Your task to perform on an android device: Open sound settings Image 0: 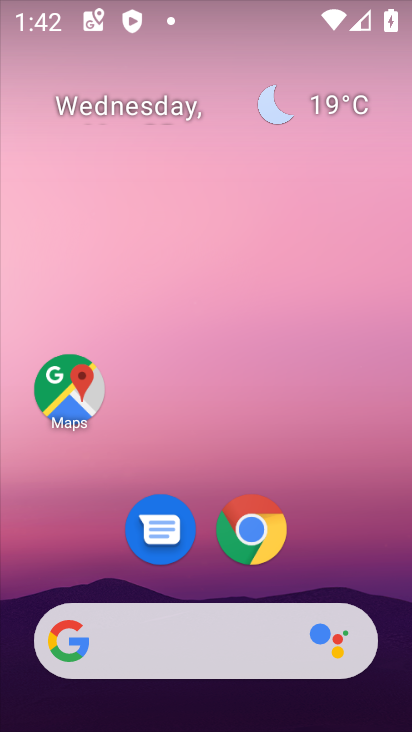
Step 0: drag from (106, 399) to (161, 195)
Your task to perform on an android device: Open sound settings Image 1: 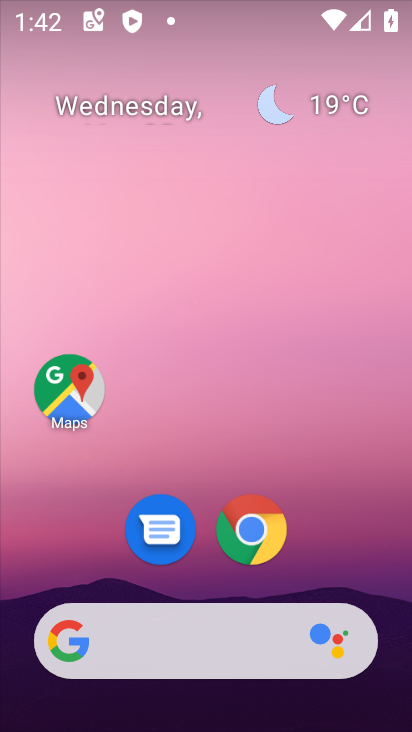
Step 1: drag from (79, 603) to (155, 200)
Your task to perform on an android device: Open sound settings Image 2: 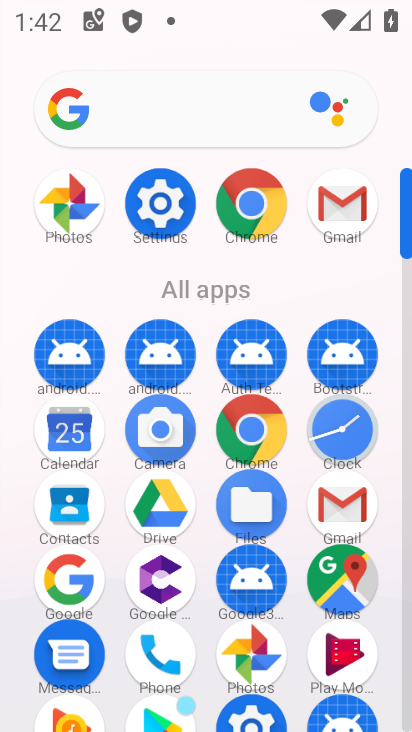
Step 2: drag from (169, 670) to (245, 351)
Your task to perform on an android device: Open sound settings Image 3: 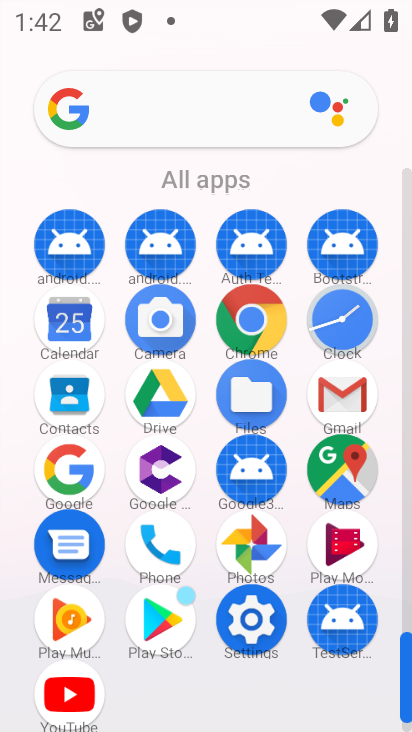
Step 3: click (258, 619)
Your task to perform on an android device: Open sound settings Image 4: 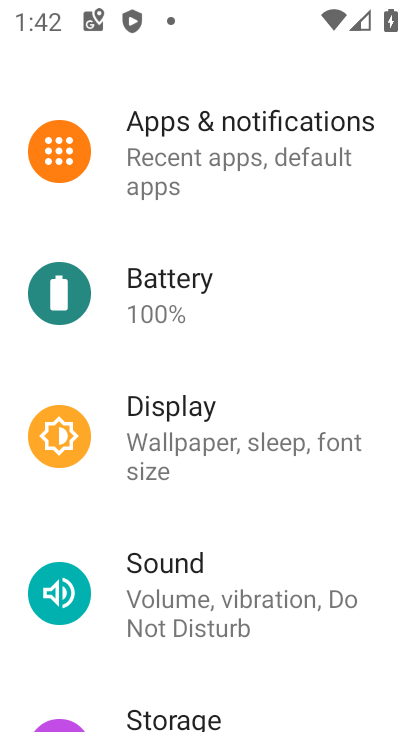
Step 4: drag from (203, 631) to (224, 308)
Your task to perform on an android device: Open sound settings Image 5: 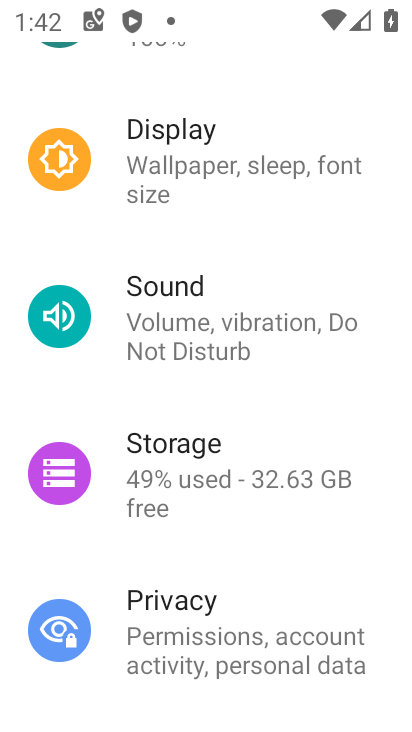
Step 5: click (208, 324)
Your task to perform on an android device: Open sound settings Image 6: 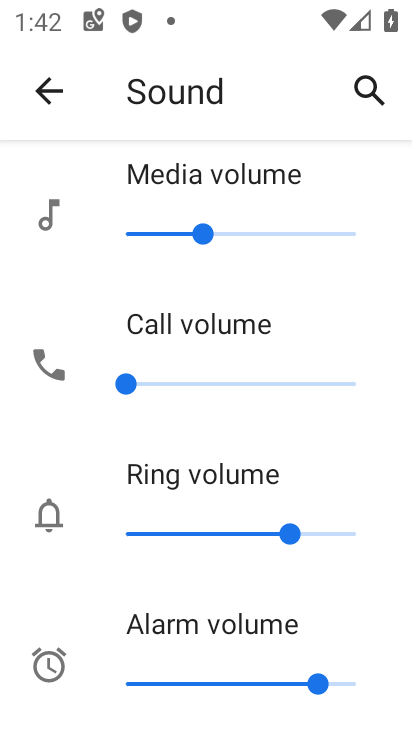
Step 6: task complete